Your task to perform on an android device: Open the phone app and click the voicemail tab. Image 0: 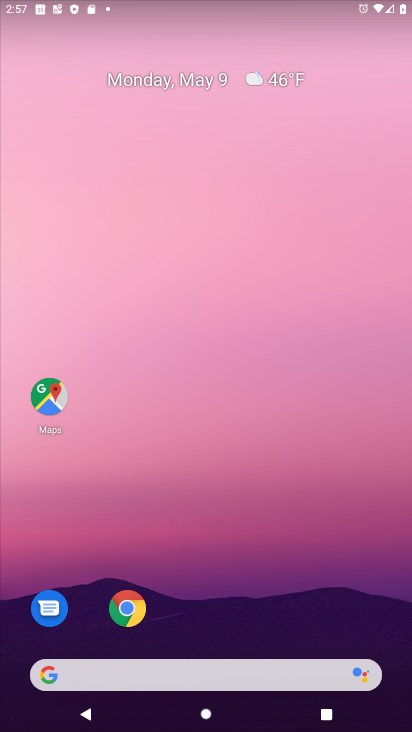
Step 0: drag from (162, 620) to (290, 175)
Your task to perform on an android device: Open the phone app and click the voicemail tab. Image 1: 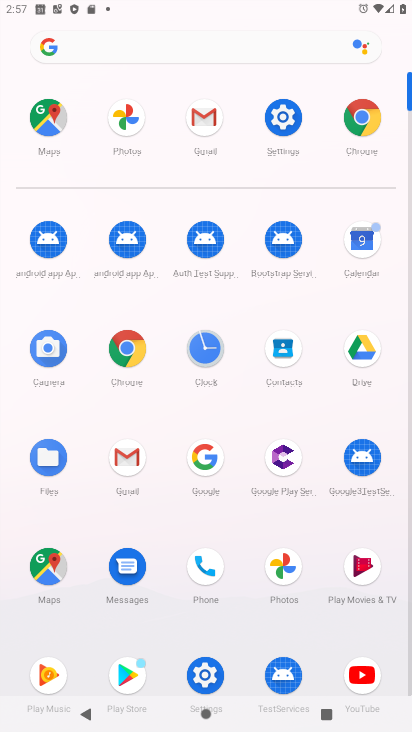
Step 1: click (196, 560)
Your task to perform on an android device: Open the phone app and click the voicemail tab. Image 2: 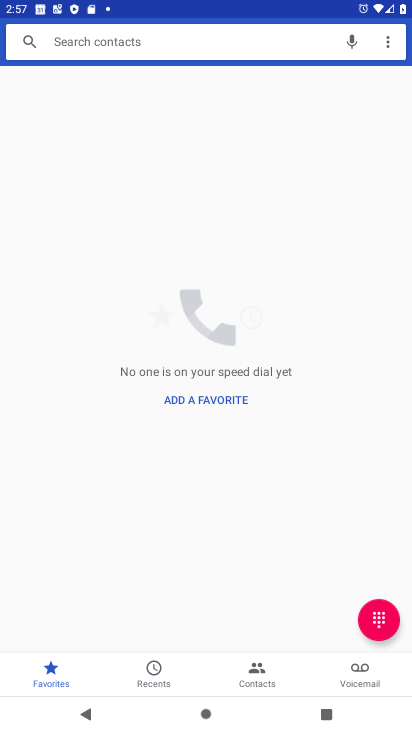
Step 2: click (345, 671)
Your task to perform on an android device: Open the phone app and click the voicemail tab. Image 3: 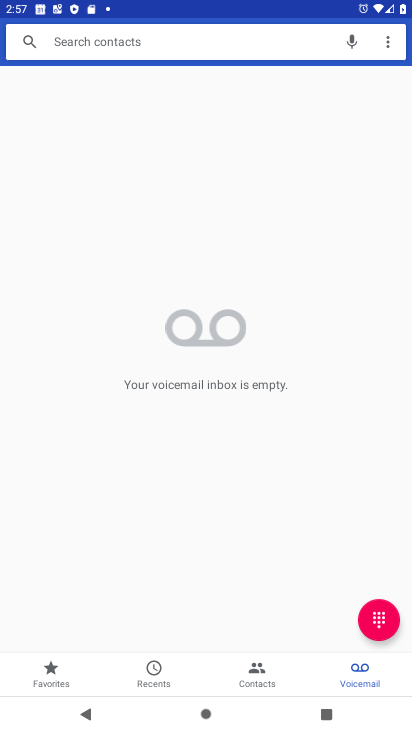
Step 3: task complete